Your task to perform on an android device: Open Google Chrome Image 0: 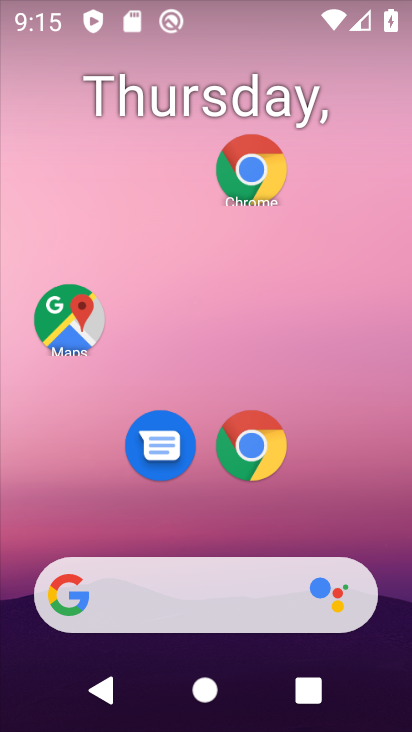
Step 0: click (246, 448)
Your task to perform on an android device: Open Google Chrome Image 1: 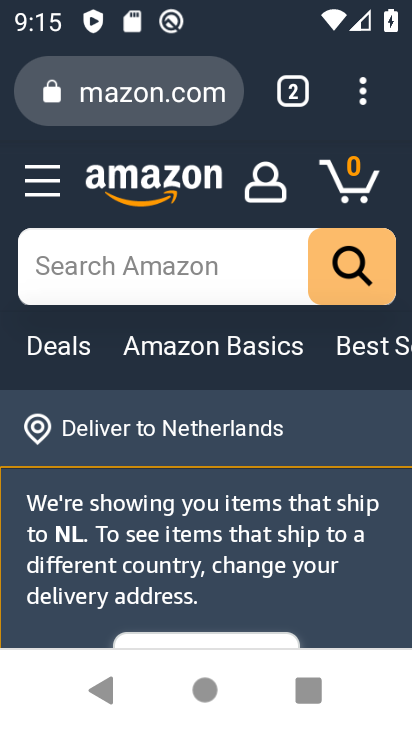
Step 1: task complete